Your task to perform on an android device: Go to Google Image 0: 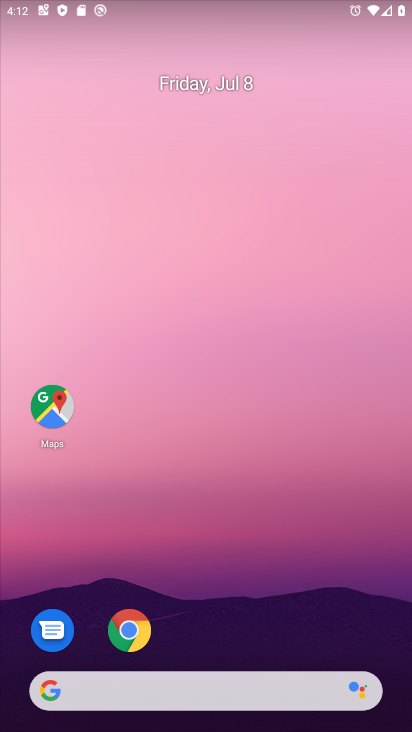
Step 0: drag from (240, 652) to (237, 37)
Your task to perform on an android device: Go to Google Image 1: 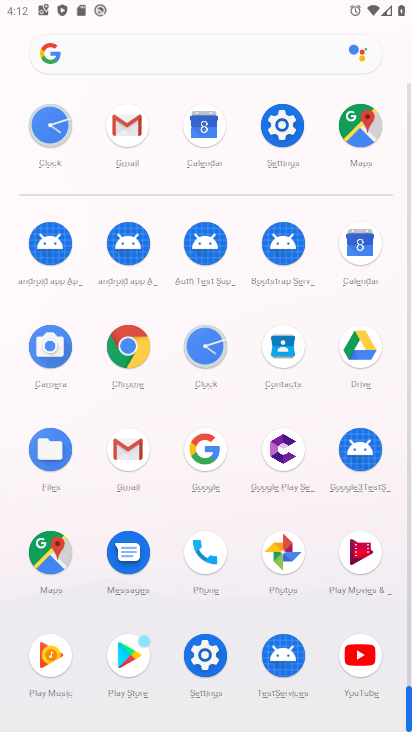
Step 1: click (202, 447)
Your task to perform on an android device: Go to Google Image 2: 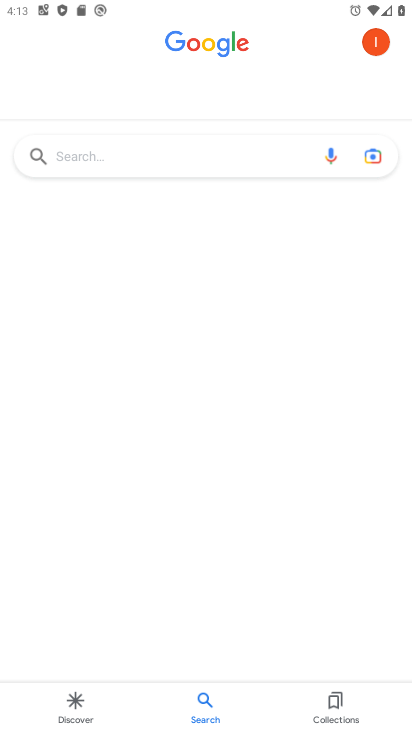
Step 2: task complete